Your task to perform on an android device: Go to wifi settings Image 0: 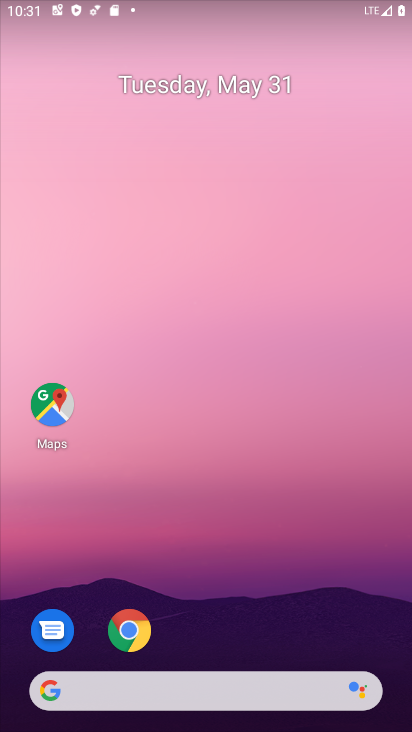
Step 0: drag from (212, 637) to (265, 150)
Your task to perform on an android device: Go to wifi settings Image 1: 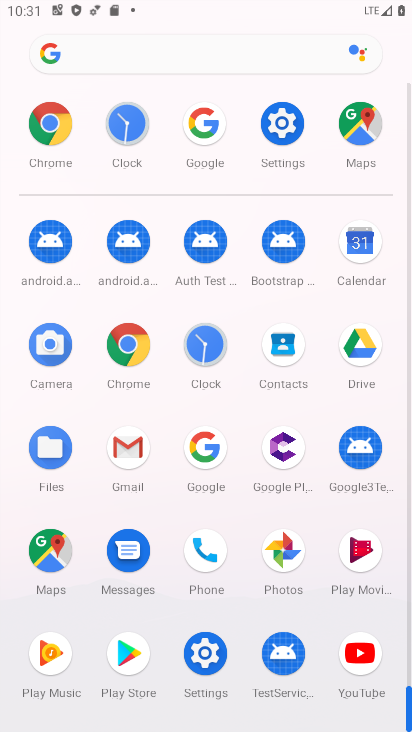
Step 1: click (268, 130)
Your task to perform on an android device: Go to wifi settings Image 2: 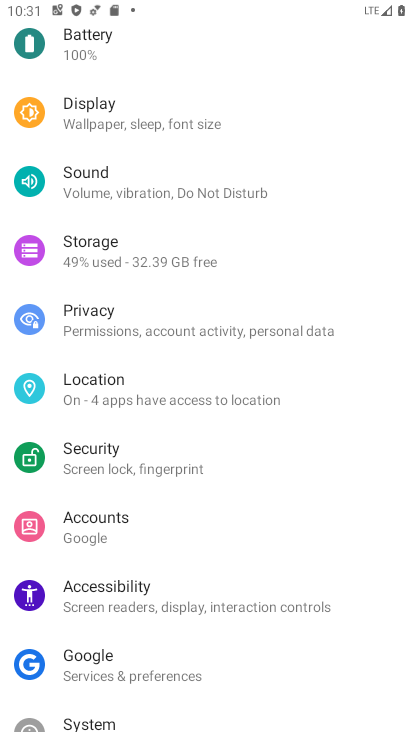
Step 2: drag from (249, 263) to (201, 630)
Your task to perform on an android device: Go to wifi settings Image 3: 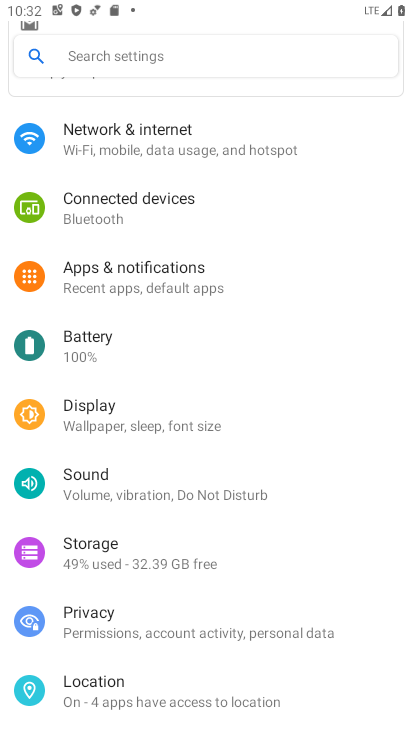
Step 3: drag from (209, 192) to (212, 599)
Your task to perform on an android device: Go to wifi settings Image 4: 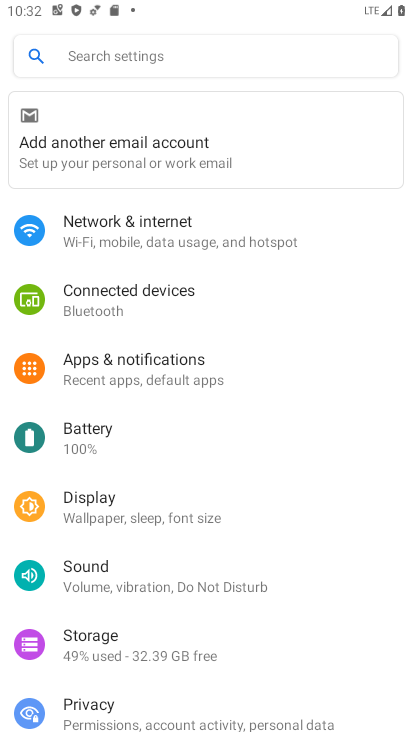
Step 4: click (235, 239)
Your task to perform on an android device: Go to wifi settings Image 5: 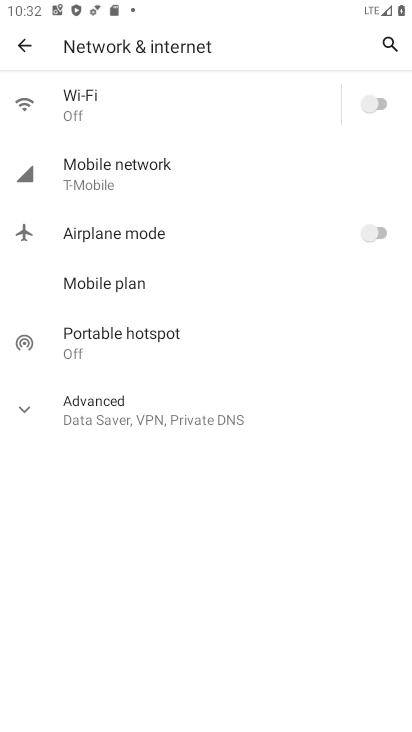
Step 5: click (135, 117)
Your task to perform on an android device: Go to wifi settings Image 6: 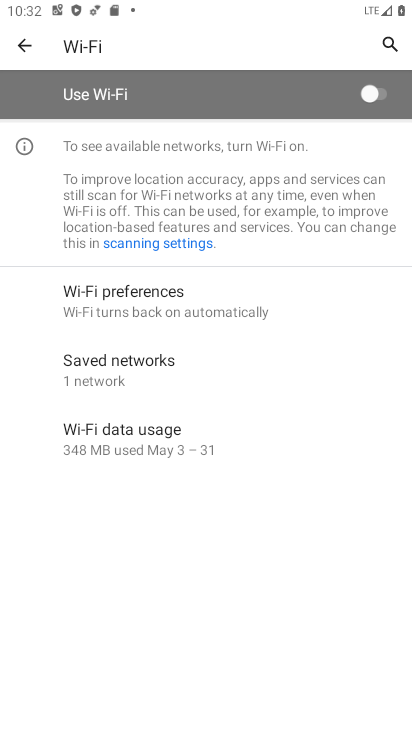
Step 6: task complete